Your task to perform on an android device: open app "Google Calendar" Image 0: 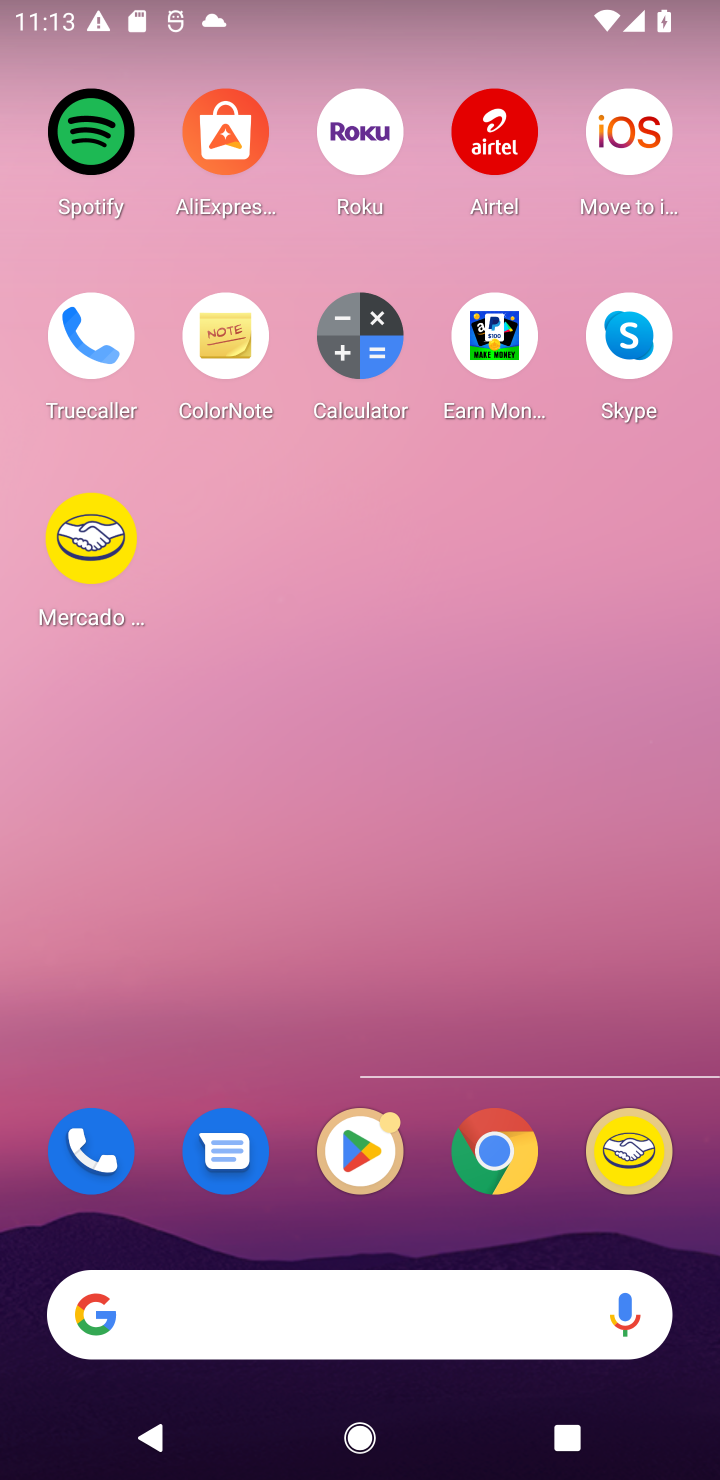
Step 0: press home button
Your task to perform on an android device: open app "Google Calendar" Image 1: 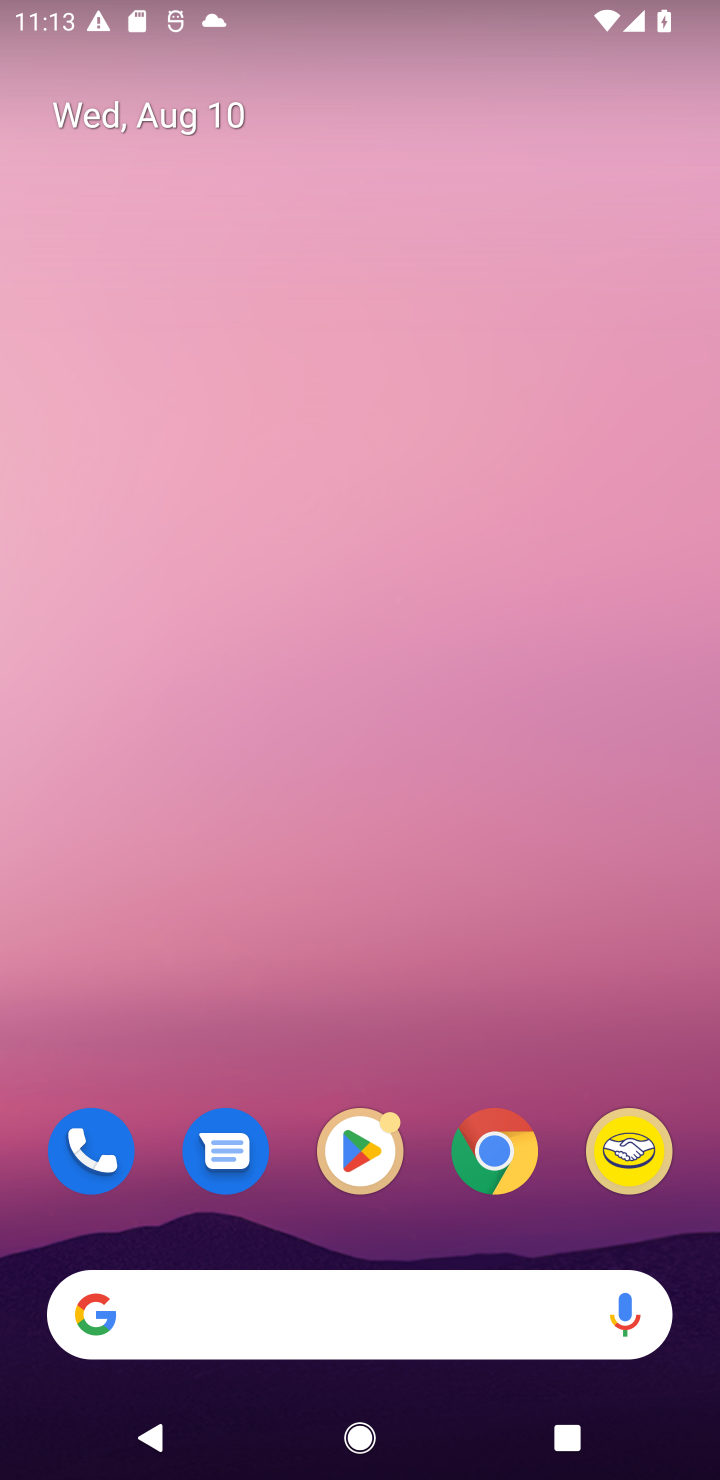
Step 1: drag from (417, 1058) to (484, 0)
Your task to perform on an android device: open app "Google Calendar" Image 2: 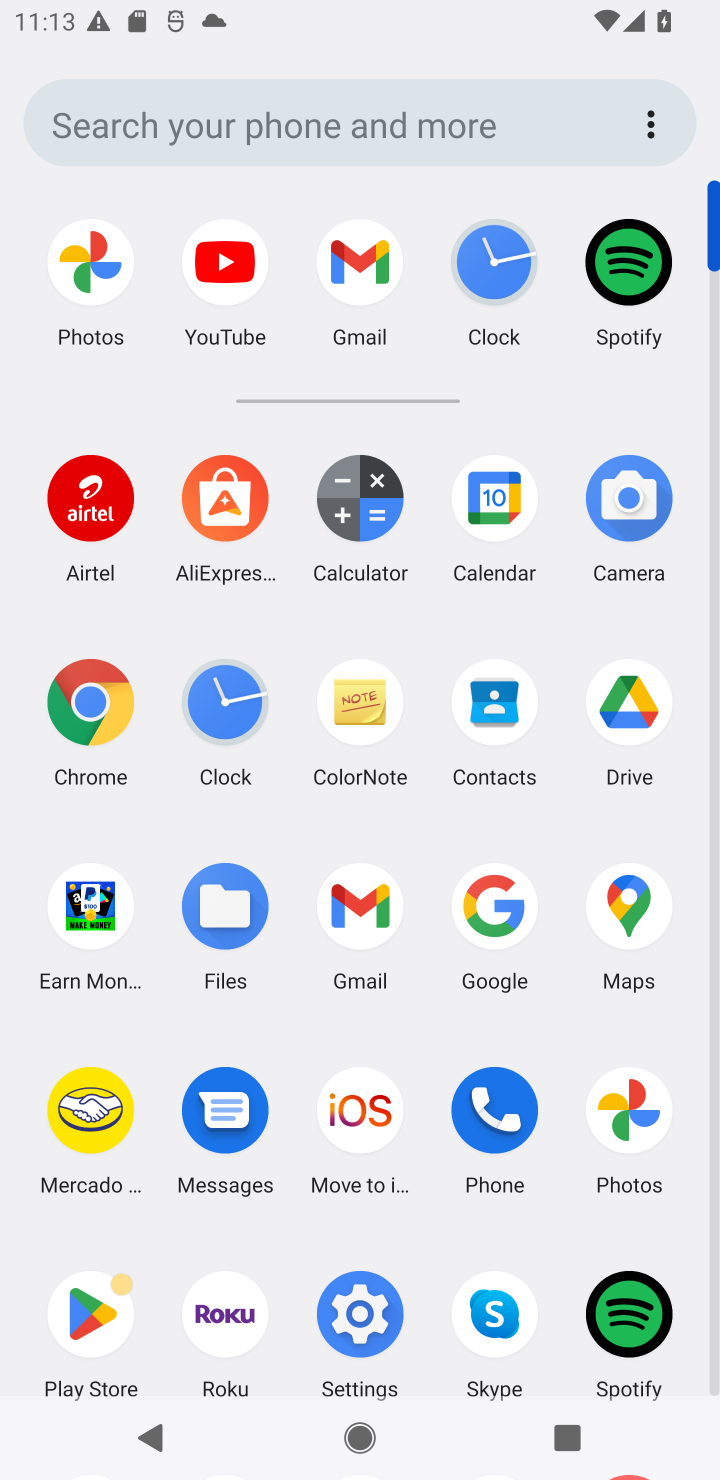
Step 2: click (92, 1300)
Your task to perform on an android device: open app "Google Calendar" Image 3: 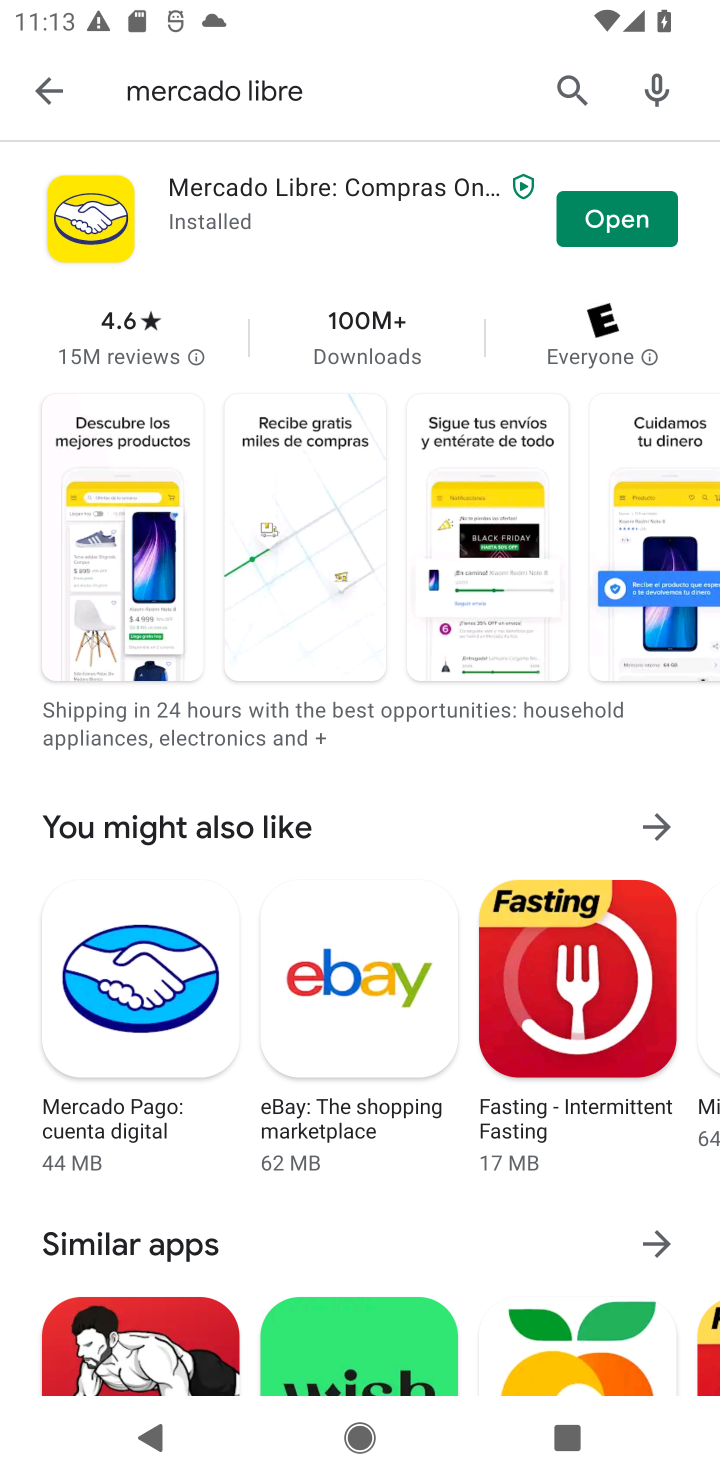
Step 3: click (568, 104)
Your task to perform on an android device: open app "Google Calendar" Image 4: 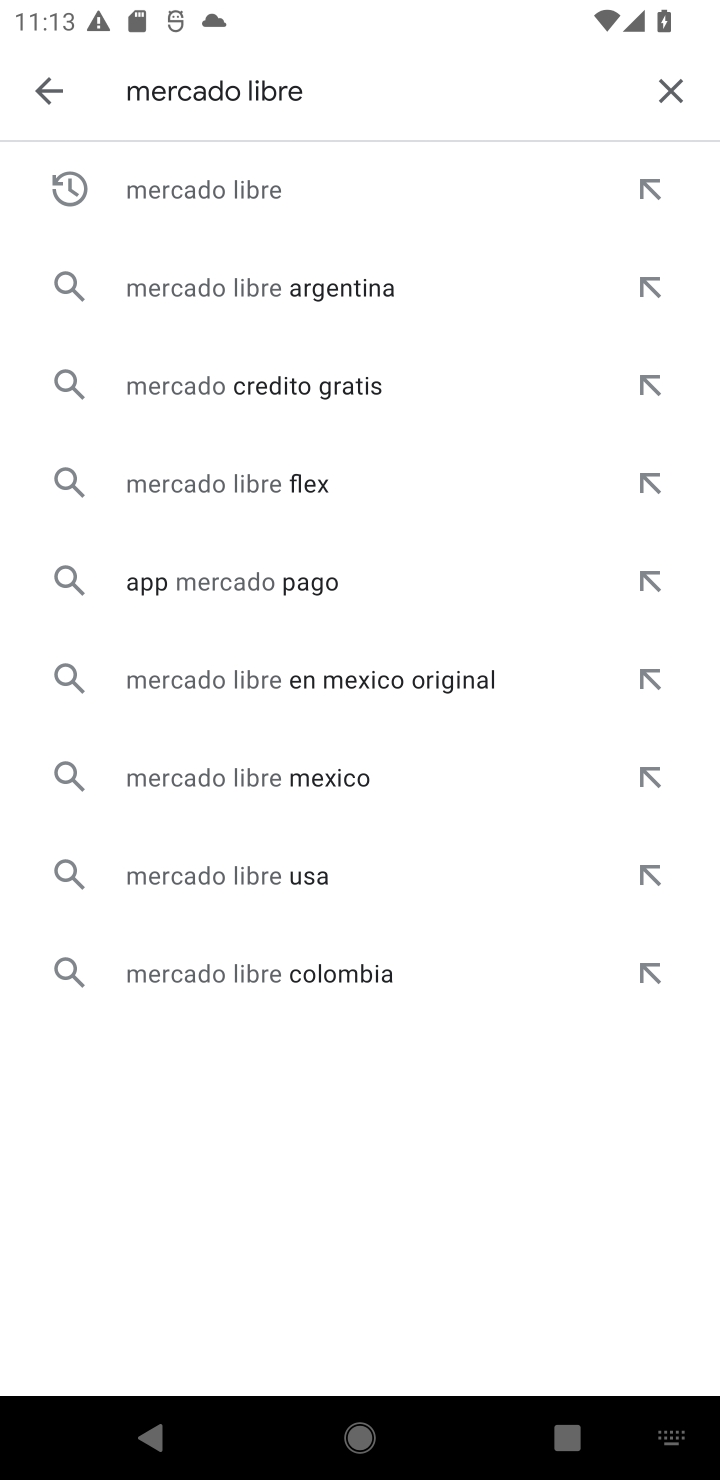
Step 4: click (669, 96)
Your task to perform on an android device: open app "Google Calendar" Image 5: 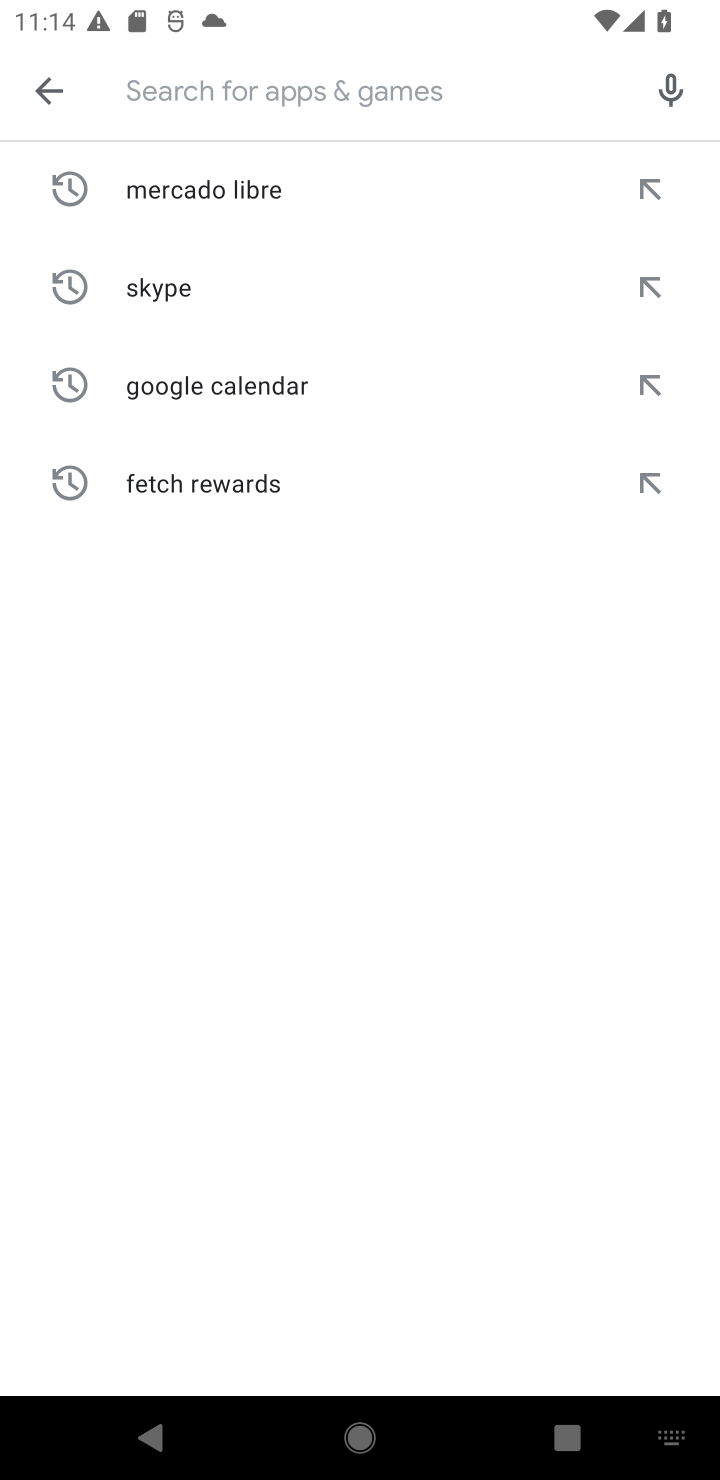
Step 5: type "Google Calendar"
Your task to perform on an android device: open app "Google Calendar" Image 6: 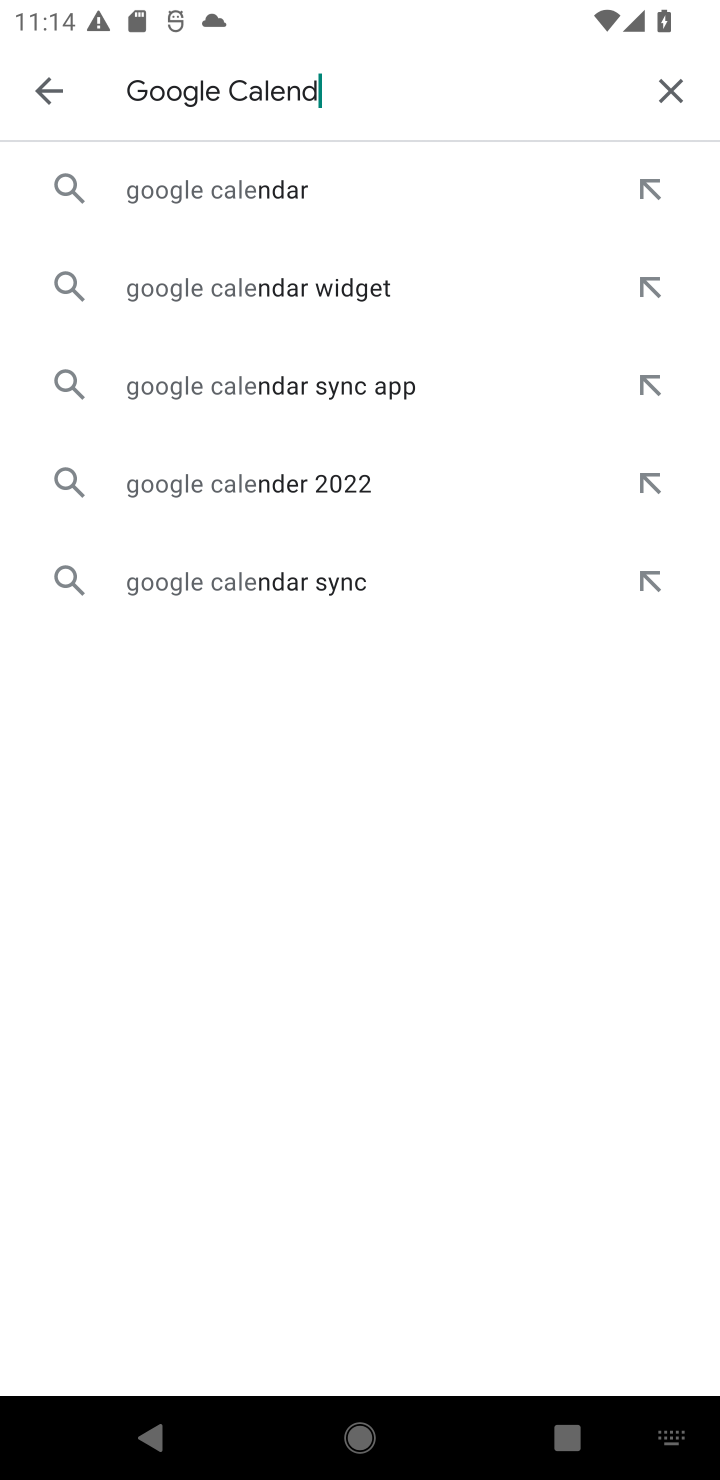
Step 6: type ""
Your task to perform on an android device: open app "Google Calendar" Image 7: 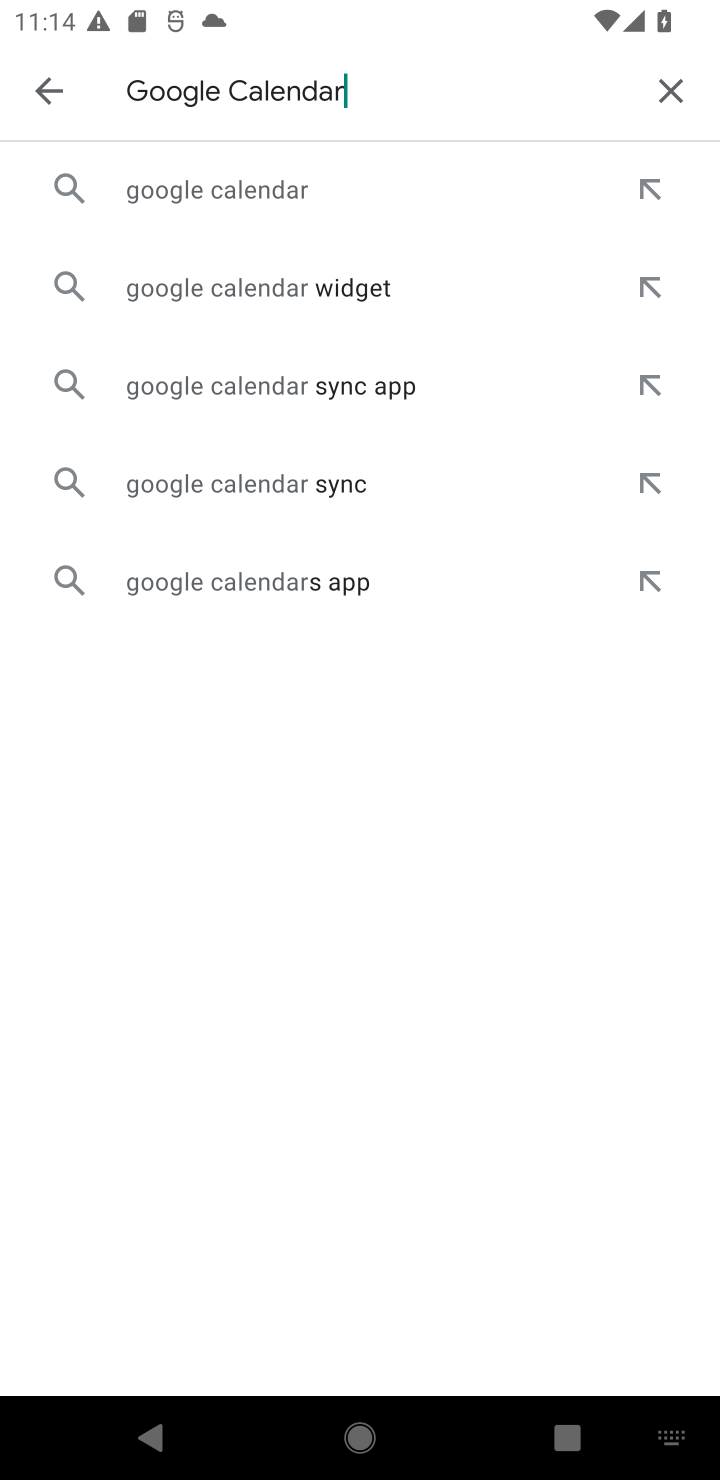
Step 7: click (470, 196)
Your task to perform on an android device: open app "Google Calendar" Image 8: 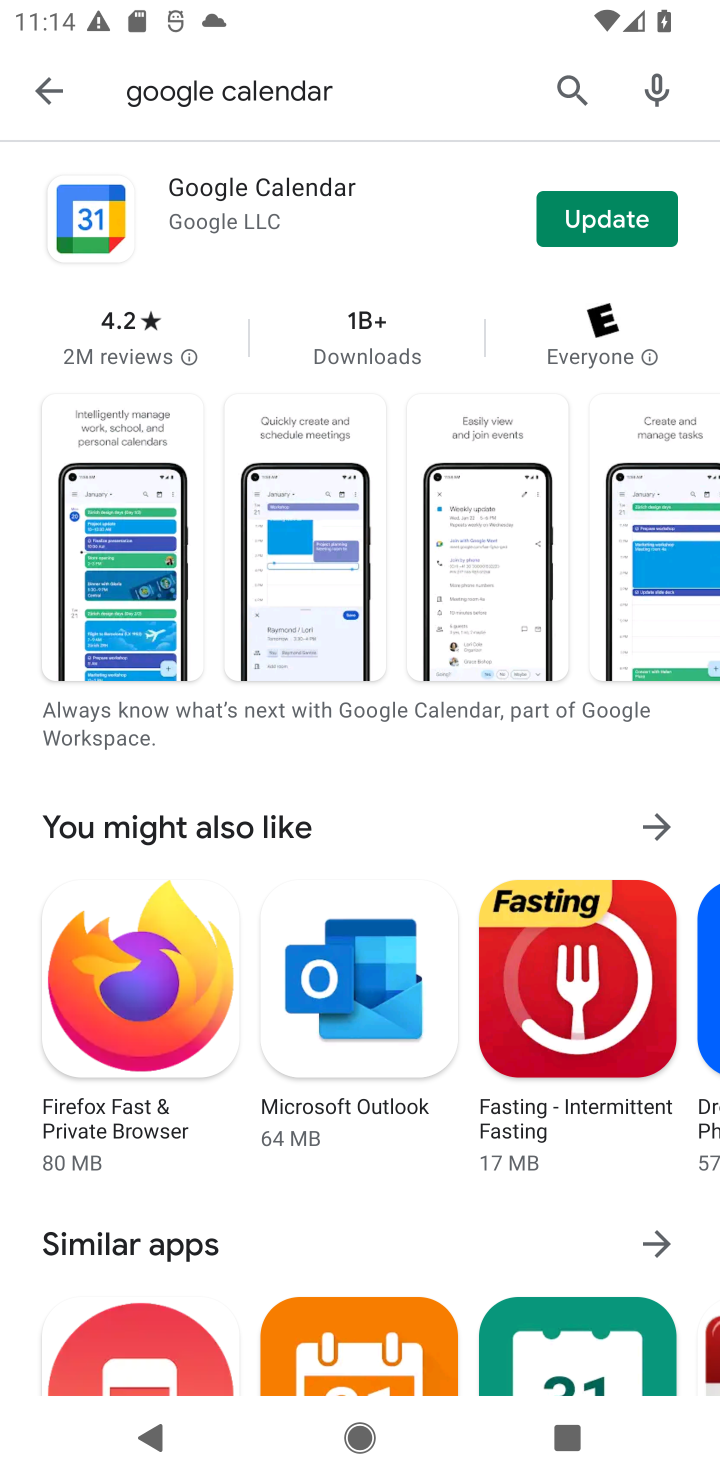
Step 8: click (602, 219)
Your task to perform on an android device: open app "Google Calendar" Image 9: 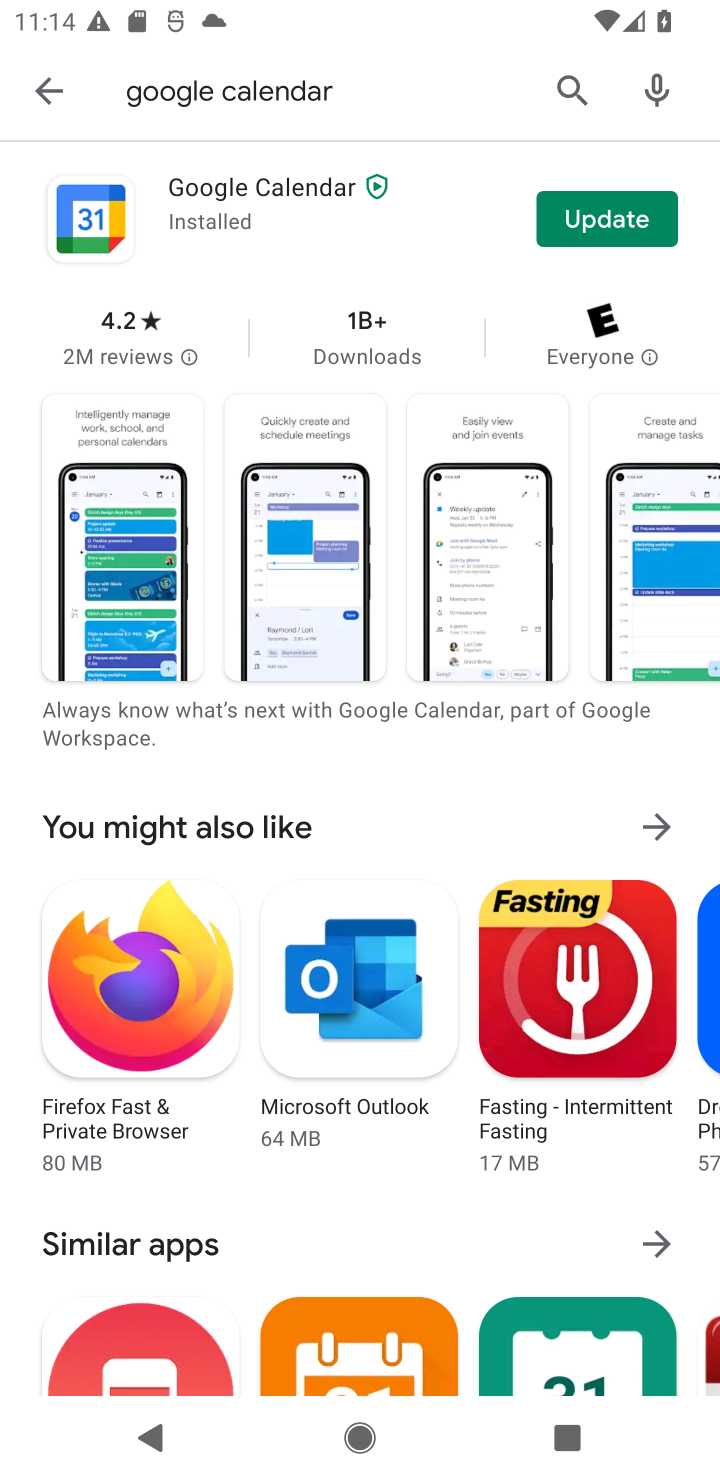
Step 9: task complete